Your task to perform on an android device: Clear the cart on target. Search for "razer huntsman" on target, select the first entry, add it to the cart, then select checkout. Image 0: 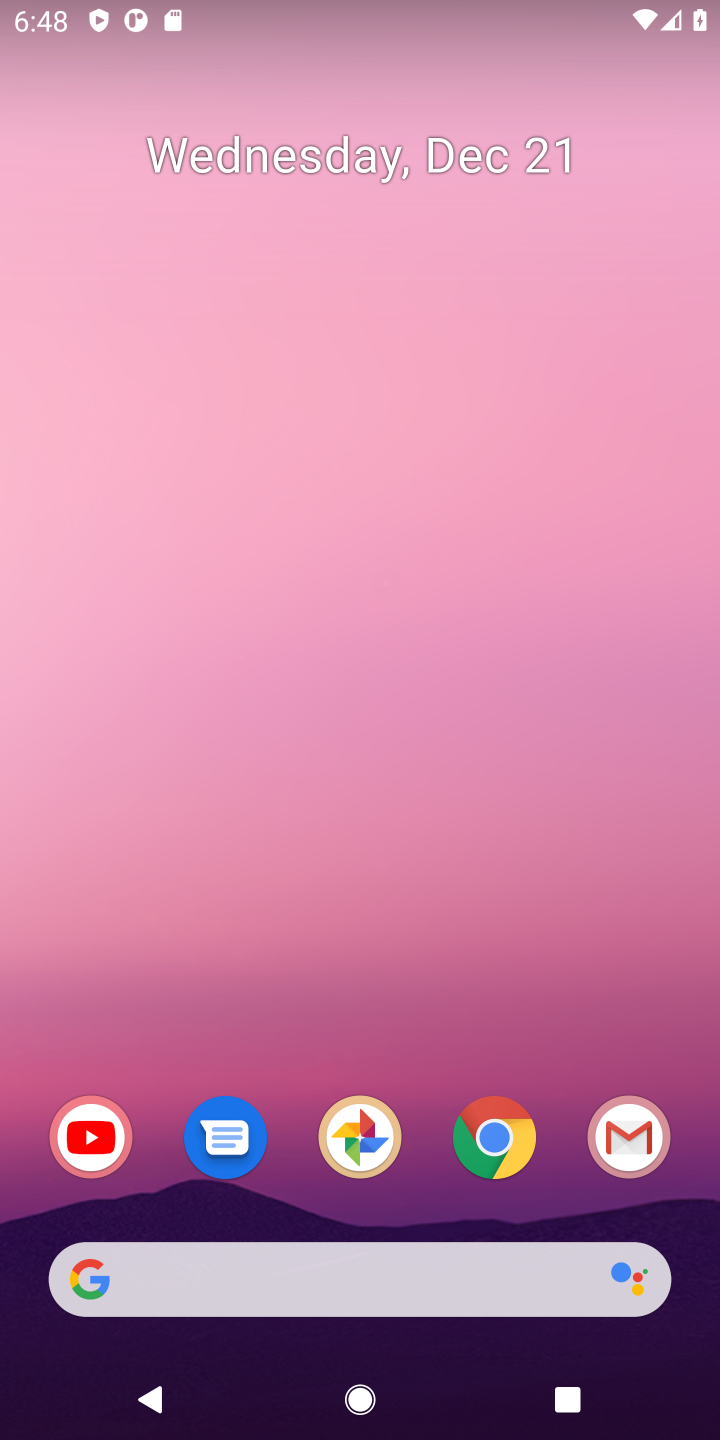
Step 0: click (507, 1147)
Your task to perform on an android device: Clear the cart on target. Search for "razer huntsman" on target, select the first entry, add it to the cart, then select checkout. Image 1: 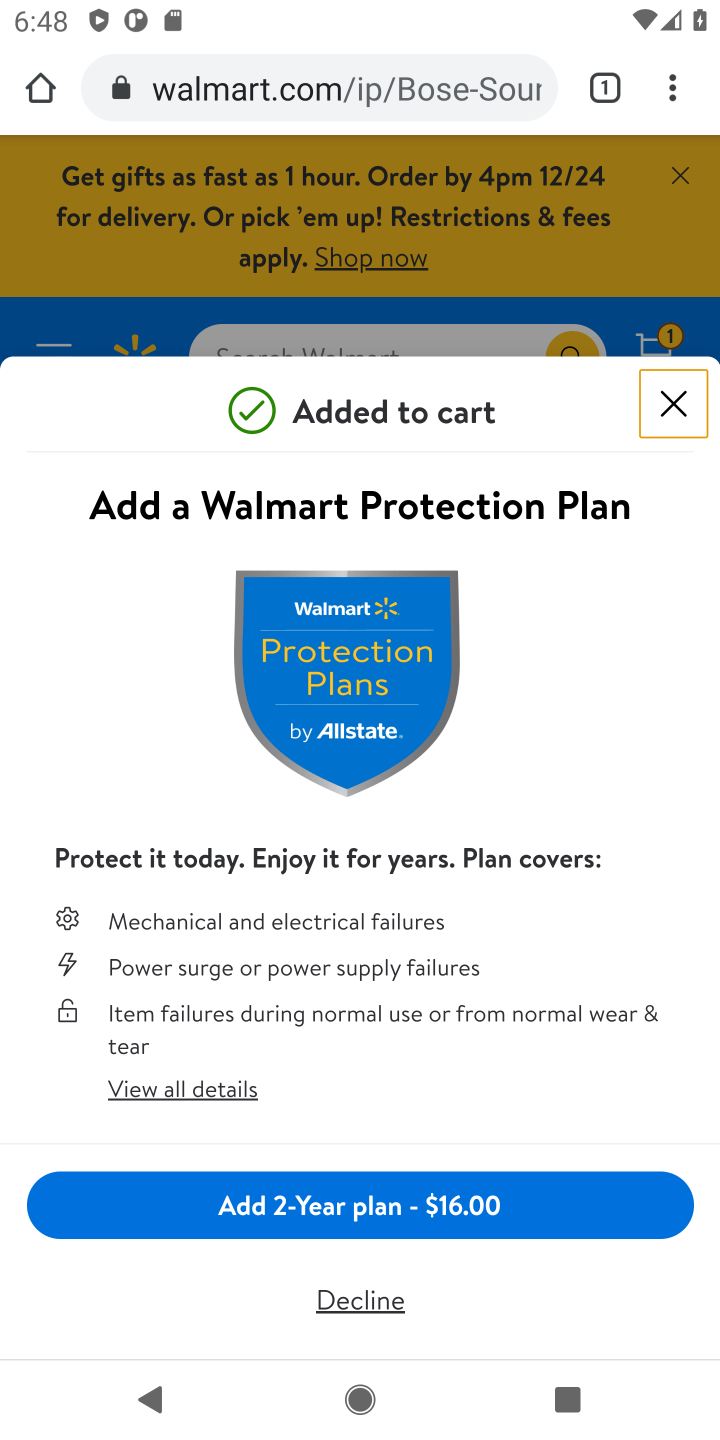
Step 1: click (273, 87)
Your task to perform on an android device: Clear the cart on target. Search for "razer huntsman" on target, select the first entry, add it to the cart, then select checkout. Image 2: 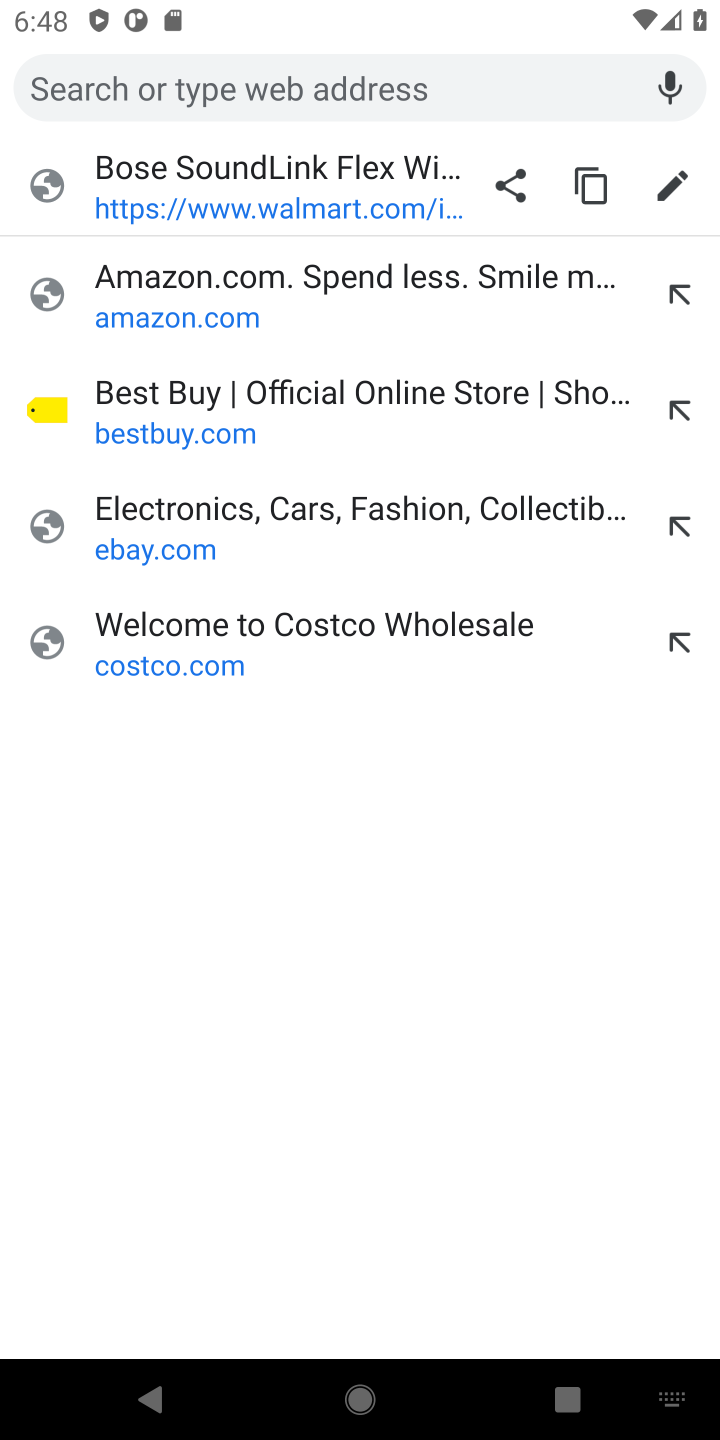
Step 2: type "target.com"
Your task to perform on an android device: Clear the cart on target. Search for "razer huntsman" on target, select the first entry, add it to the cart, then select checkout. Image 3: 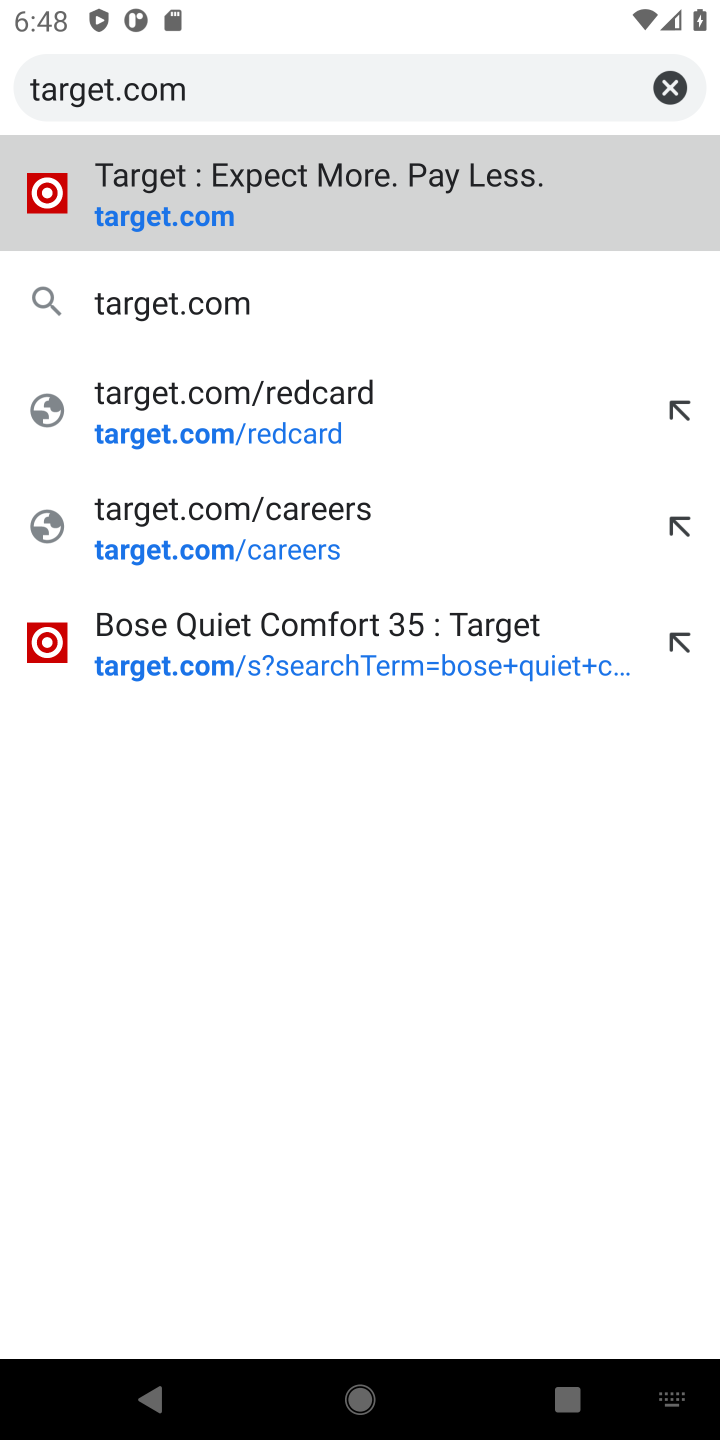
Step 3: click (123, 207)
Your task to perform on an android device: Clear the cart on target. Search for "razer huntsman" on target, select the first entry, add it to the cart, then select checkout. Image 4: 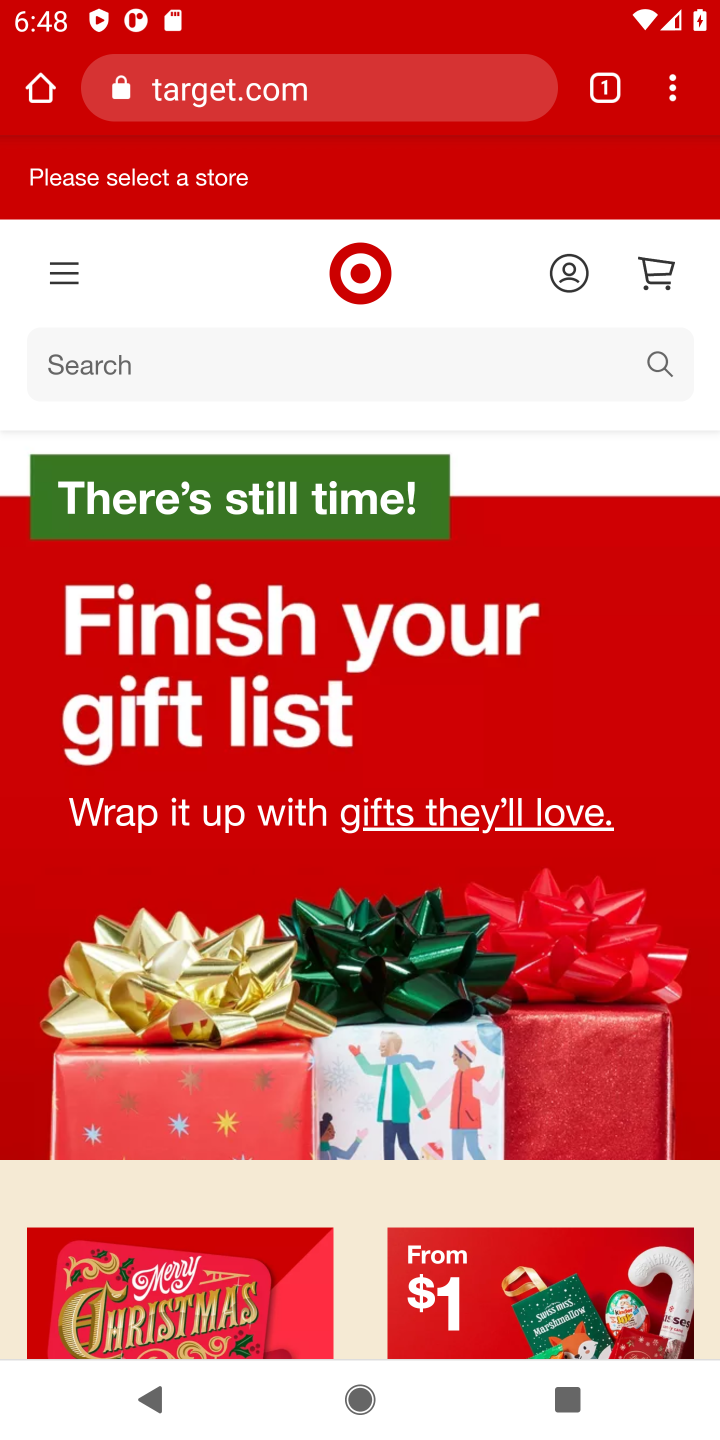
Step 4: click (664, 279)
Your task to perform on an android device: Clear the cart on target. Search for "razer huntsman" on target, select the first entry, add it to the cart, then select checkout. Image 5: 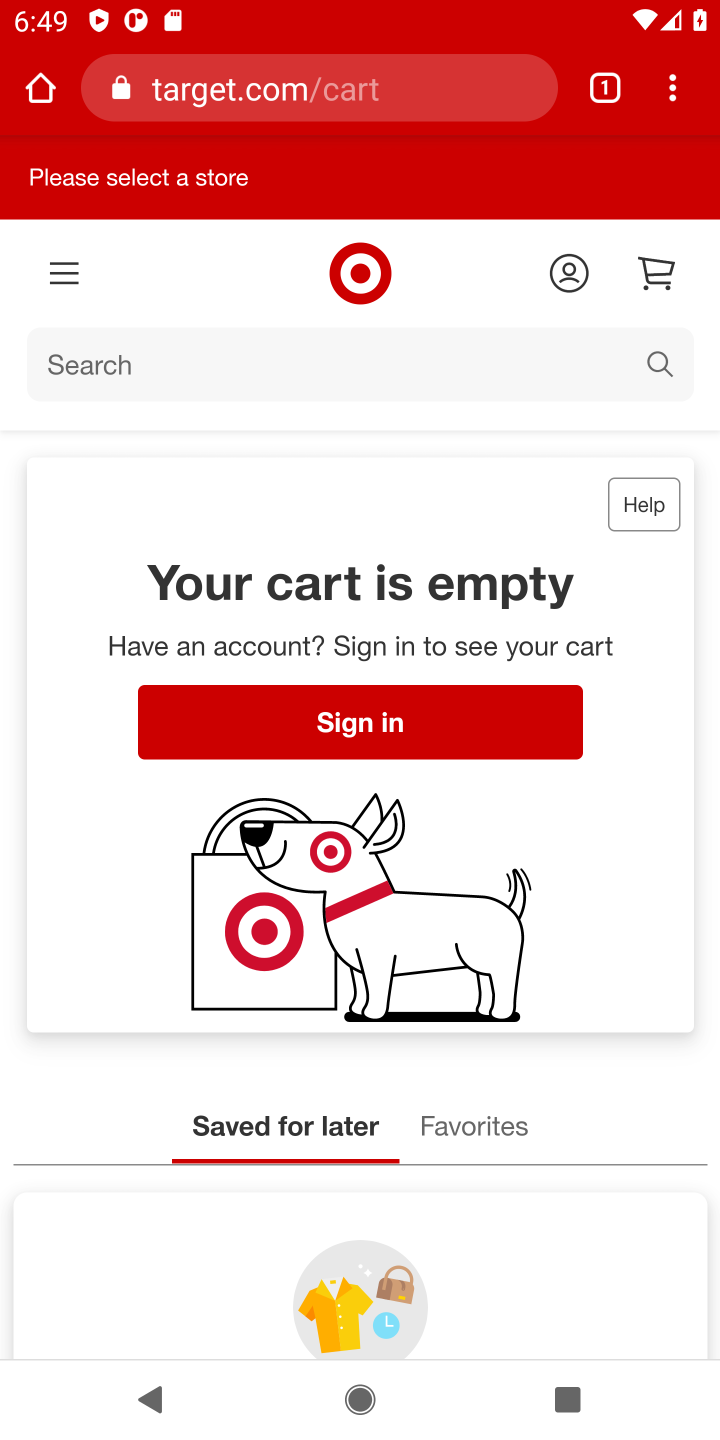
Step 5: click (51, 371)
Your task to perform on an android device: Clear the cart on target. Search for "razer huntsman" on target, select the first entry, add it to the cart, then select checkout. Image 6: 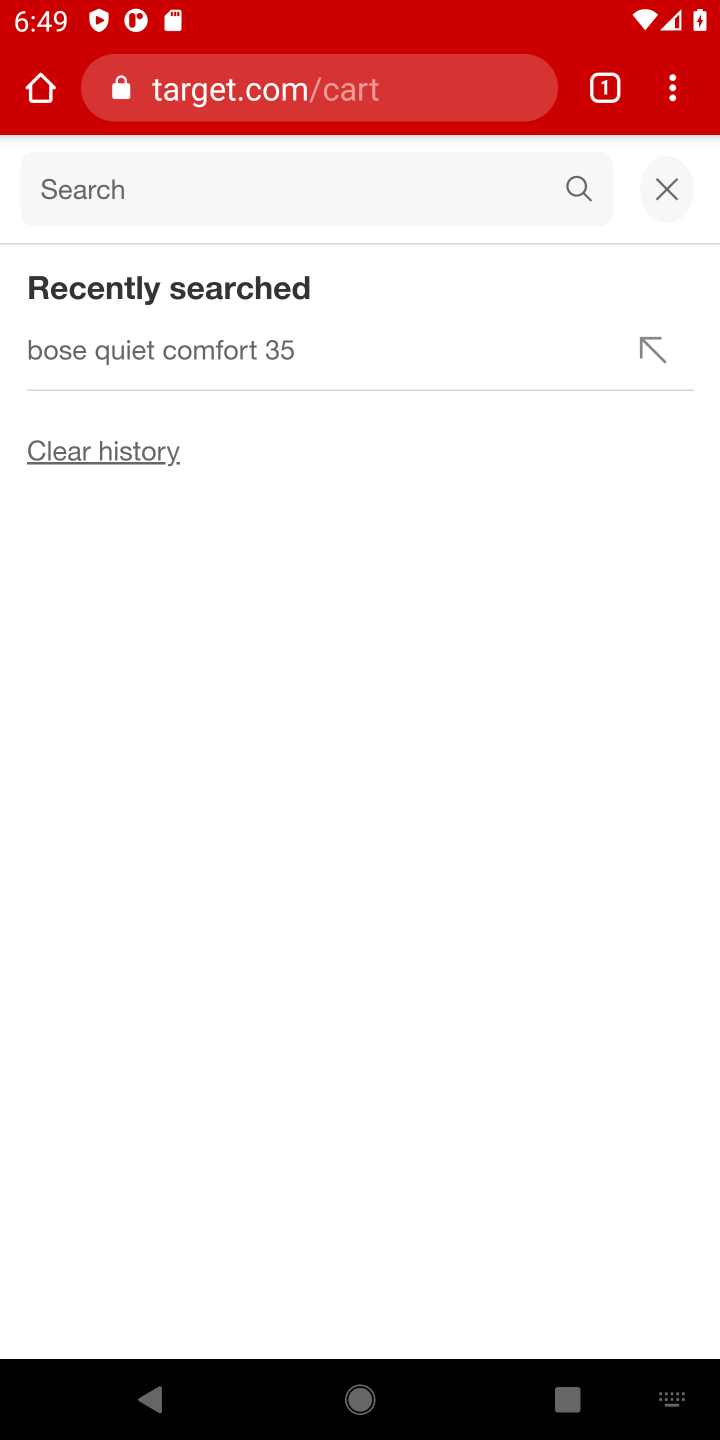
Step 6: type "razer huntsman"
Your task to perform on an android device: Clear the cart on target. Search for "razer huntsman" on target, select the first entry, add it to the cart, then select checkout. Image 7: 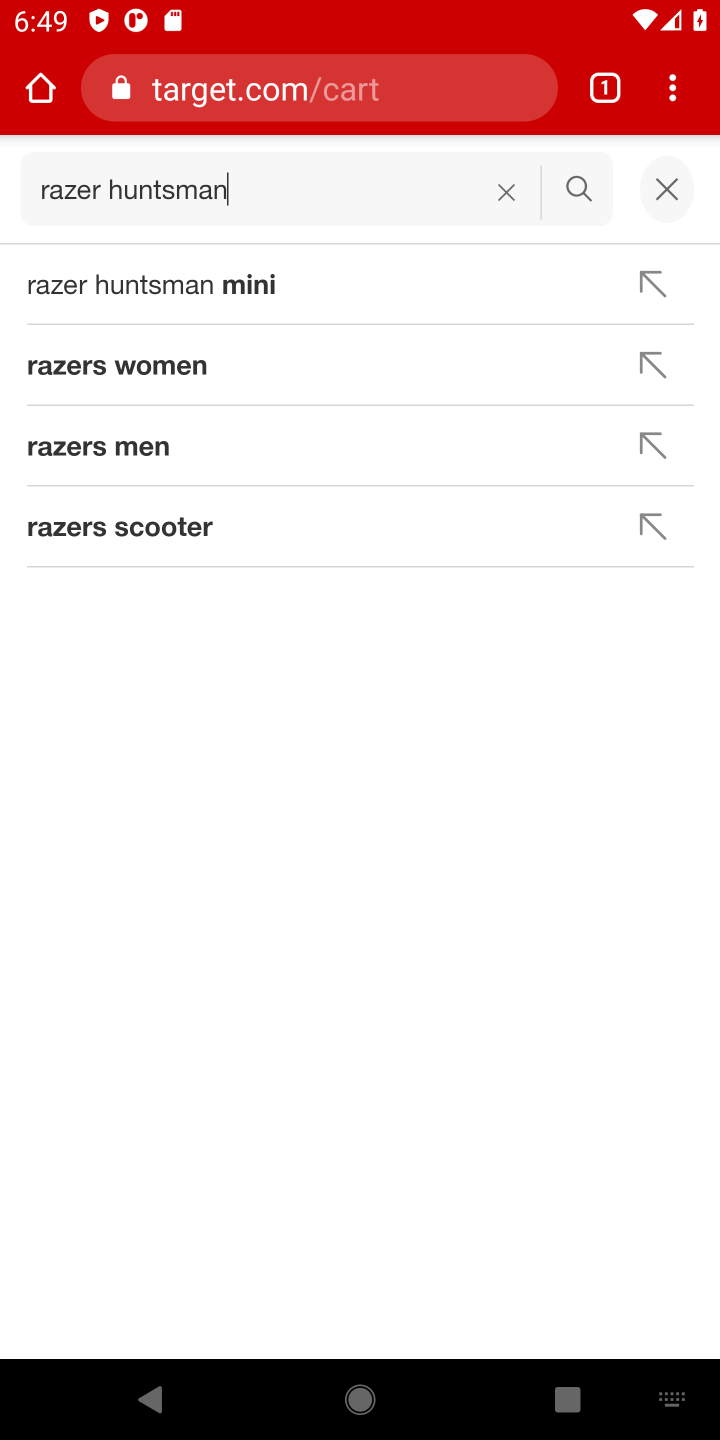
Step 7: click (591, 187)
Your task to perform on an android device: Clear the cart on target. Search for "razer huntsman" on target, select the first entry, add it to the cart, then select checkout. Image 8: 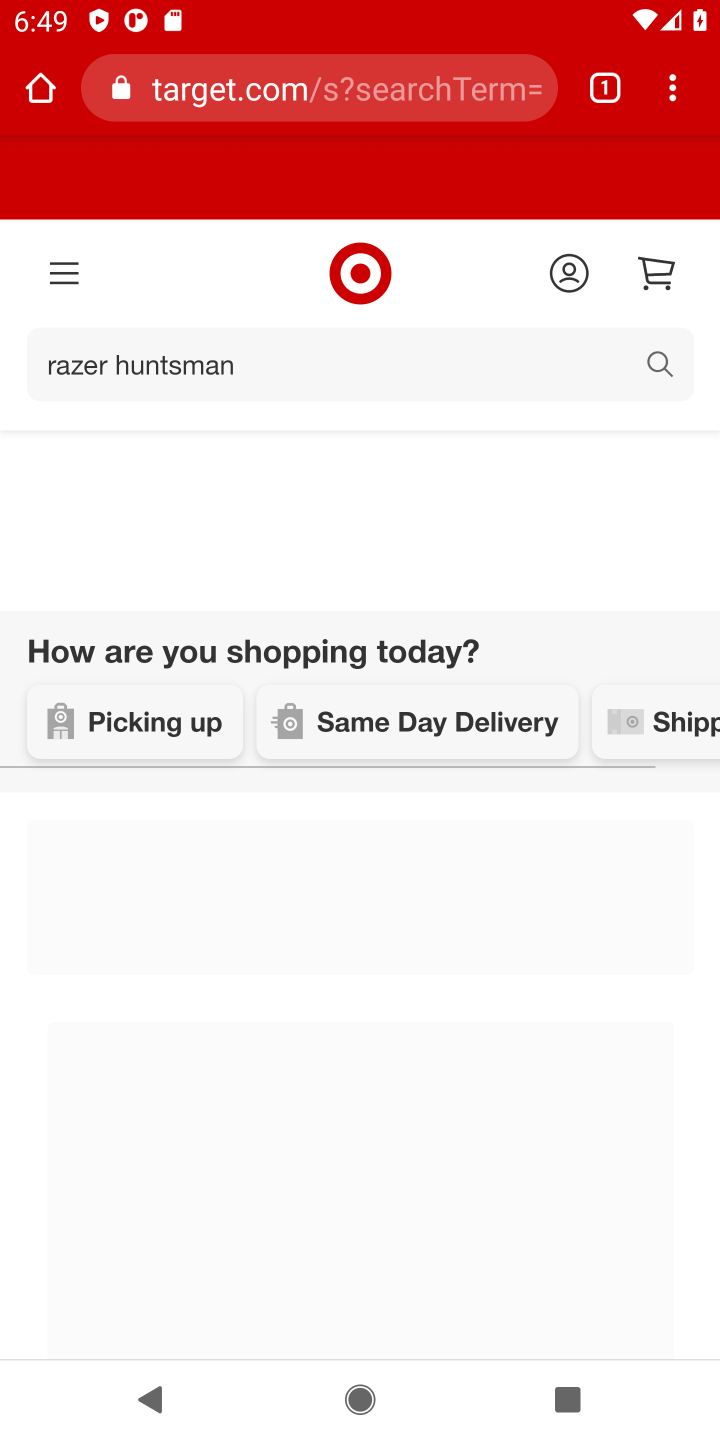
Step 8: task complete